Your task to perform on an android device: Show me popular videos on Youtube Image 0: 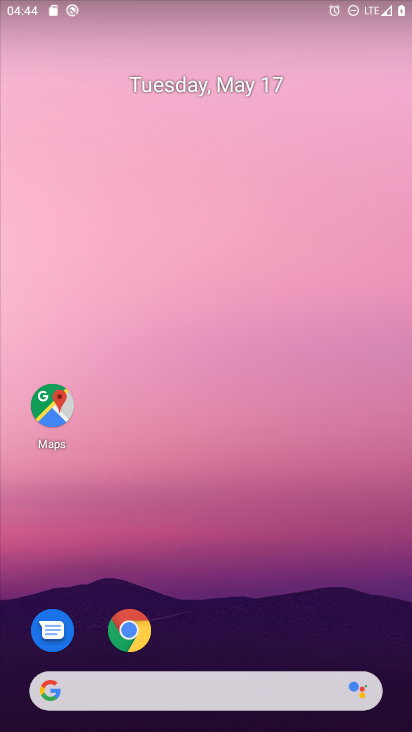
Step 0: drag from (258, 443) to (310, 73)
Your task to perform on an android device: Show me popular videos on Youtube Image 1: 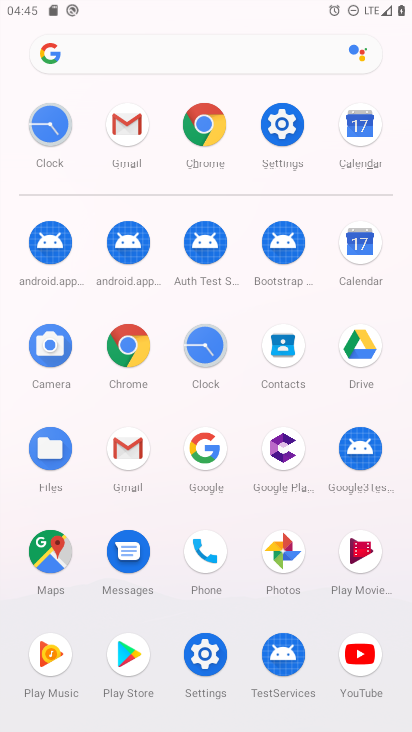
Step 1: click (353, 662)
Your task to perform on an android device: Show me popular videos on Youtube Image 2: 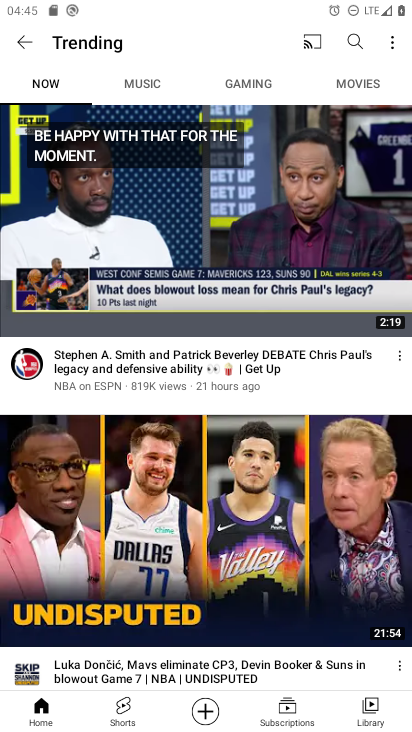
Step 2: task complete